Your task to perform on an android device: Go to location settings Image 0: 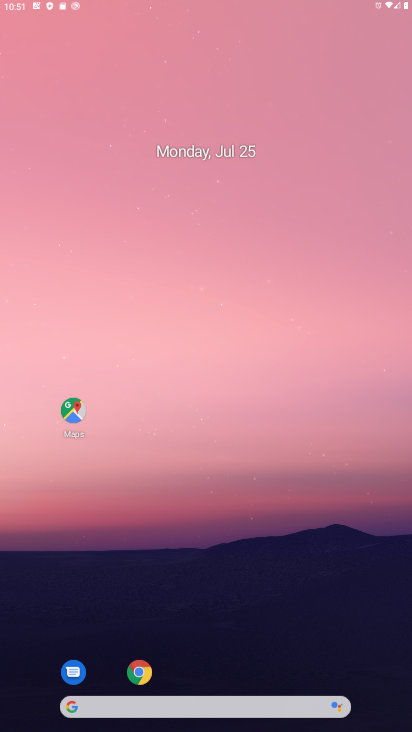
Step 0: press home button
Your task to perform on an android device: Go to location settings Image 1: 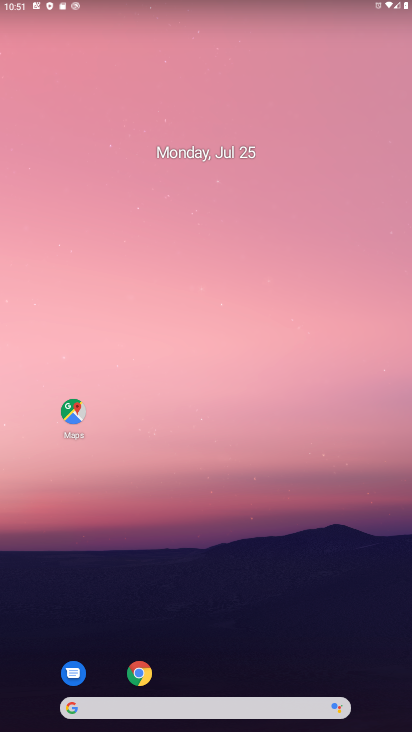
Step 1: drag from (234, 669) to (218, 30)
Your task to perform on an android device: Go to location settings Image 2: 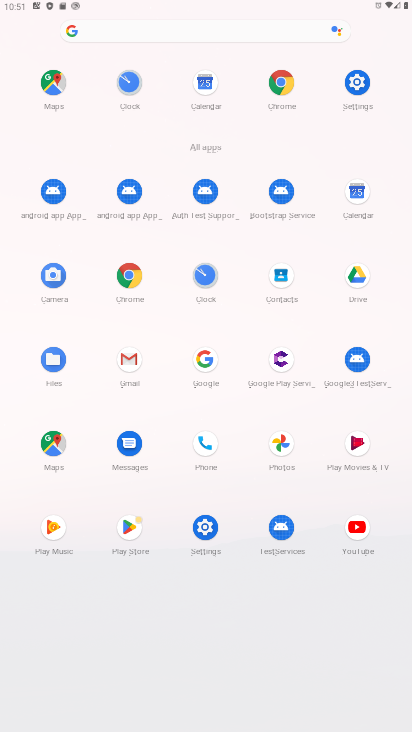
Step 2: click (202, 522)
Your task to perform on an android device: Go to location settings Image 3: 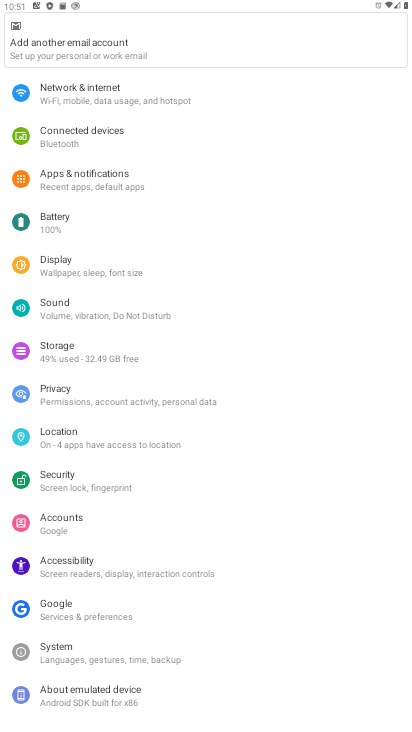
Step 3: click (90, 434)
Your task to perform on an android device: Go to location settings Image 4: 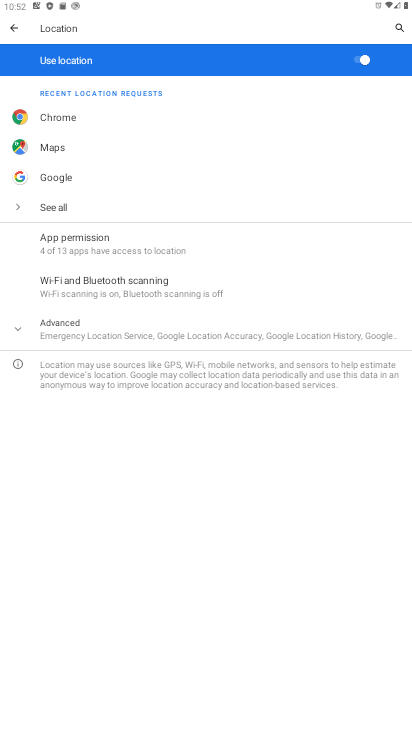
Step 4: click (14, 325)
Your task to perform on an android device: Go to location settings Image 5: 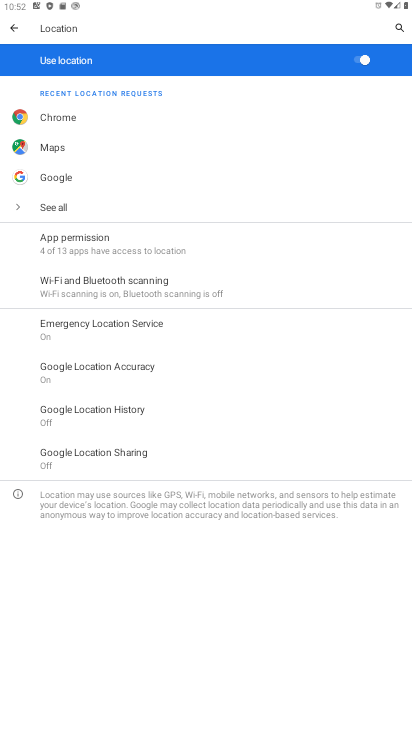
Step 5: task complete